Your task to perform on an android device: What's the weather going to be tomorrow? Image 0: 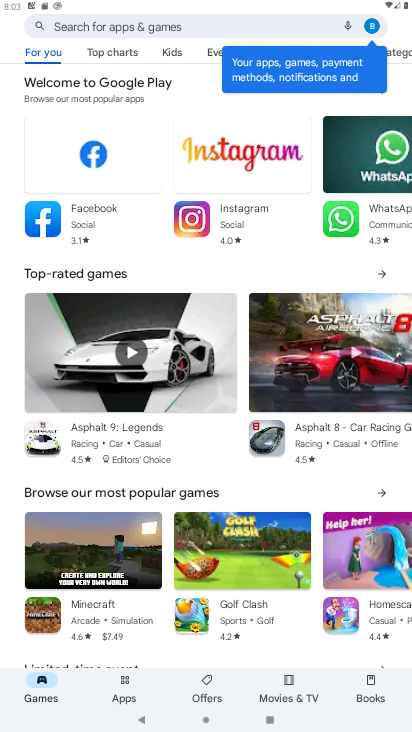
Step 0: press home button
Your task to perform on an android device: What's the weather going to be tomorrow? Image 1: 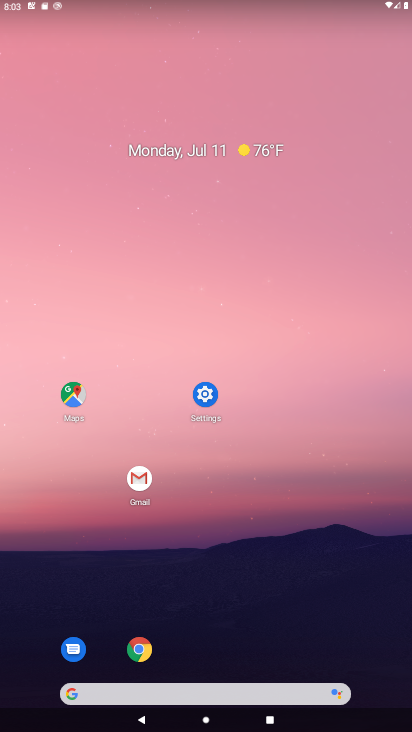
Step 1: drag from (3, 217) to (399, 231)
Your task to perform on an android device: What's the weather going to be tomorrow? Image 2: 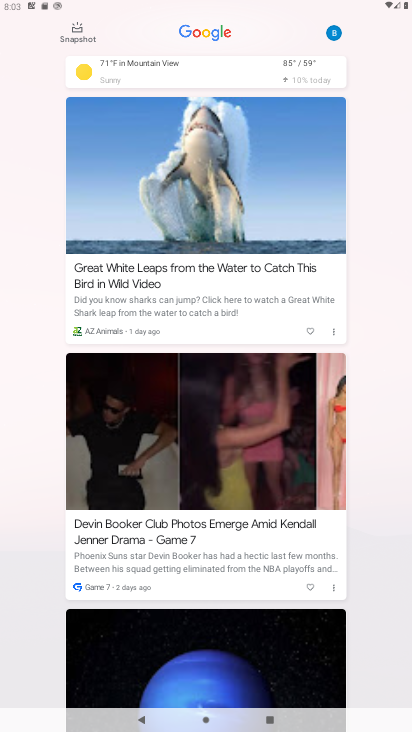
Step 2: click (288, 61)
Your task to perform on an android device: What's the weather going to be tomorrow? Image 3: 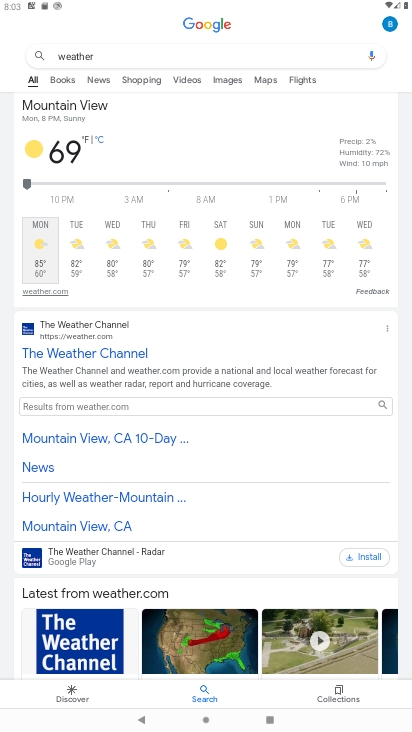
Step 3: click (59, 160)
Your task to perform on an android device: What's the weather going to be tomorrow? Image 4: 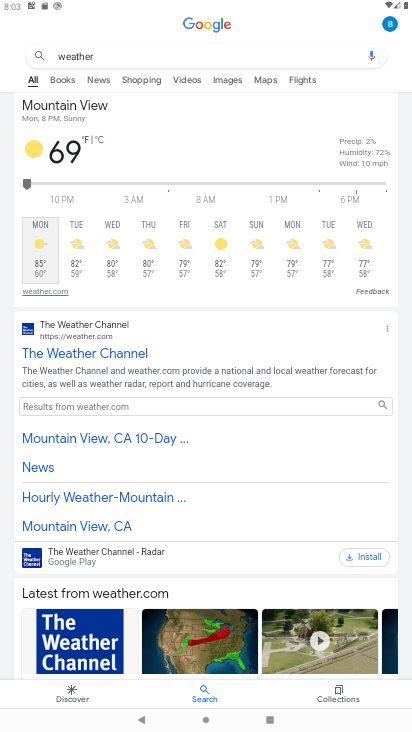
Step 4: click (53, 224)
Your task to perform on an android device: What's the weather going to be tomorrow? Image 5: 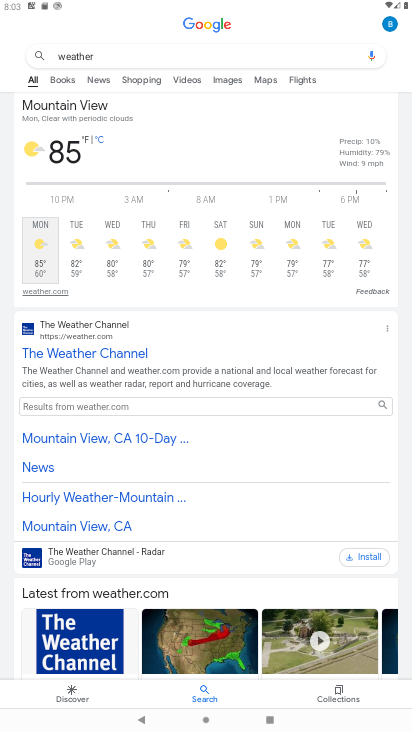
Step 5: click (80, 225)
Your task to perform on an android device: What's the weather going to be tomorrow? Image 6: 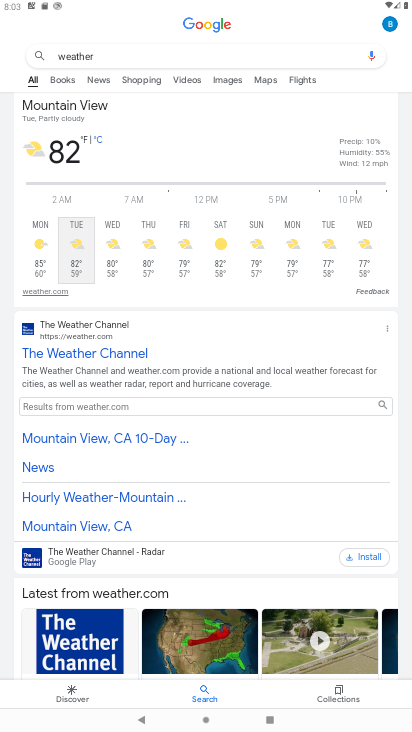
Step 6: task complete